Your task to perform on an android device: Open maps Image 0: 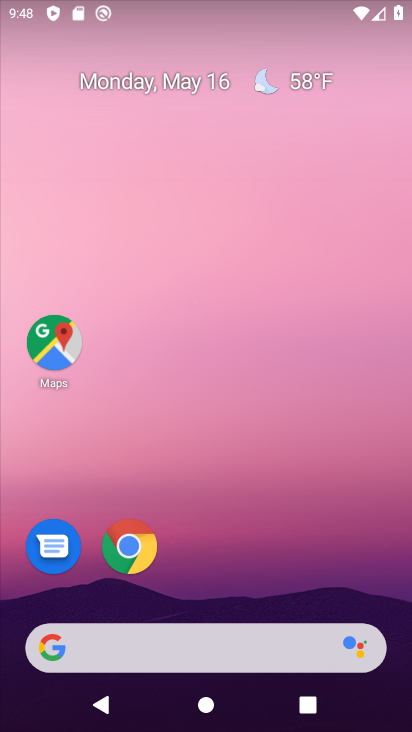
Step 0: click (53, 343)
Your task to perform on an android device: Open maps Image 1: 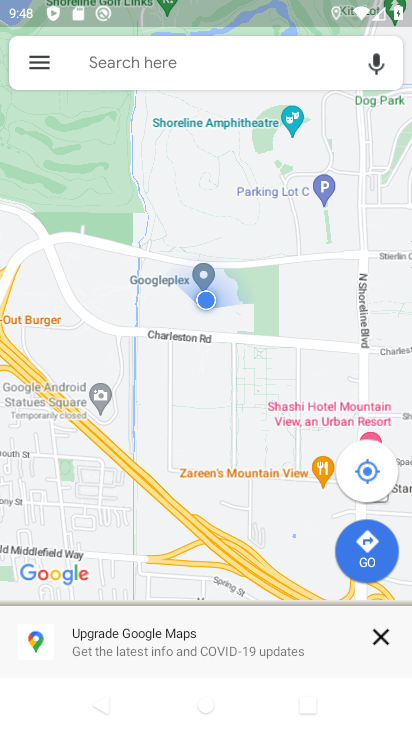
Step 1: task complete